Your task to perform on an android device: Open Android settings Image 0: 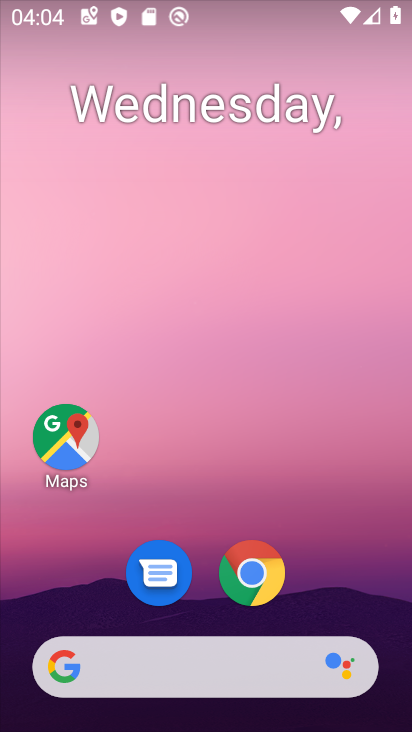
Step 0: drag from (357, 531) to (358, 121)
Your task to perform on an android device: Open Android settings Image 1: 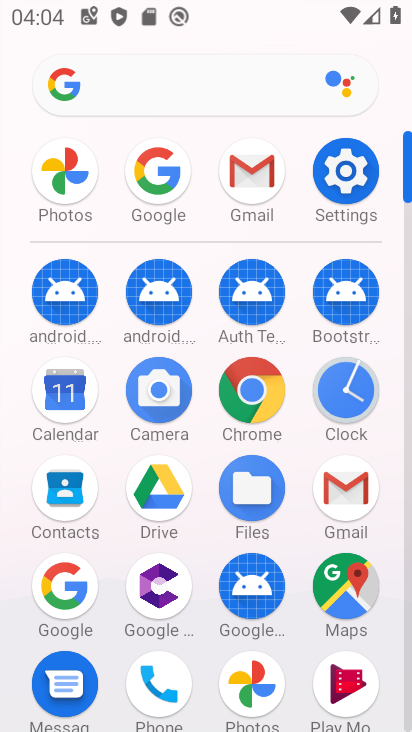
Step 1: click (348, 169)
Your task to perform on an android device: Open Android settings Image 2: 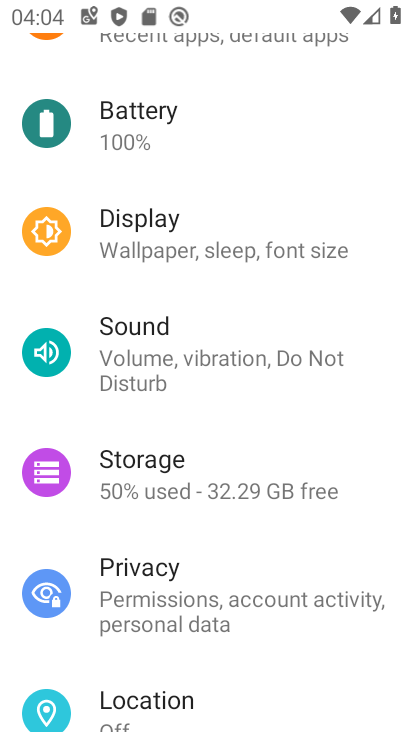
Step 2: task complete